Your task to perform on an android device: add a contact in the contacts app Image 0: 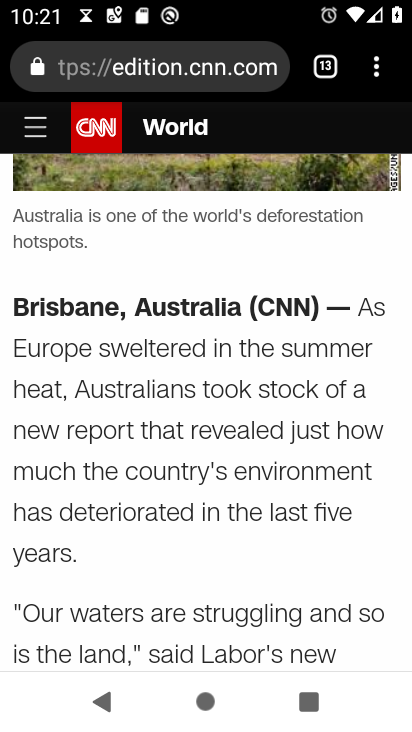
Step 0: press home button
Your task to perform on an android device: add a contact in the contacts app Image 1: 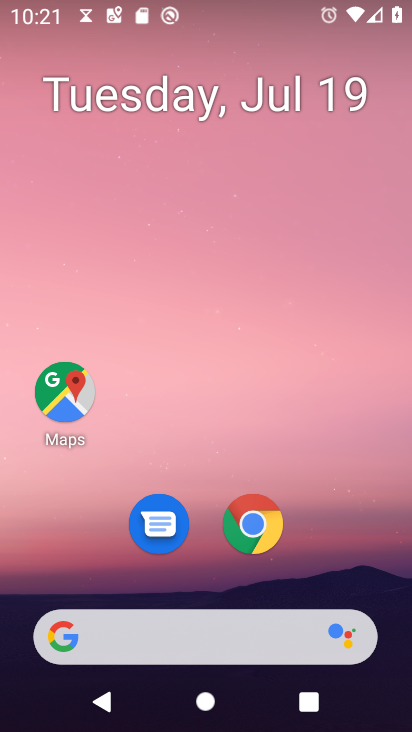
Step 1: drag from (199, 632) to (361, 36)
Your task to perform on an android device: add a contact in the contacts app Image 2: 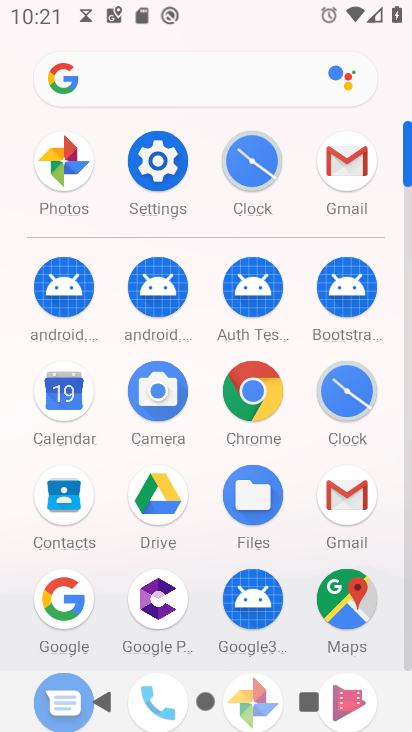
Step 2: click (64, 497)
Your task to perform on an android device: add a contact in the contacts app Image 3: 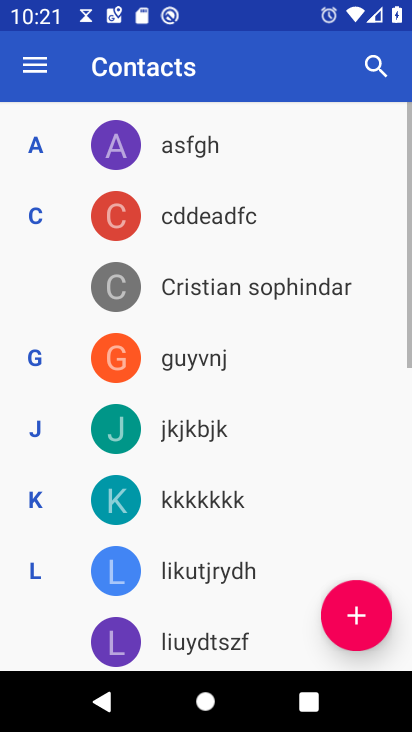
Step 3: click (366, 612)
Your task to perform on an android device: add a contact in the contacts app Image 4: 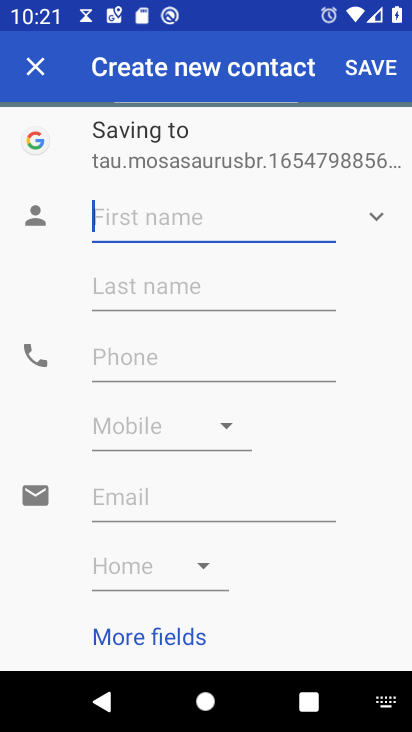
Step 4: type "nuuytiiiokn"
Your task to perform on an android device: add a contact in the contacts app Image 5: 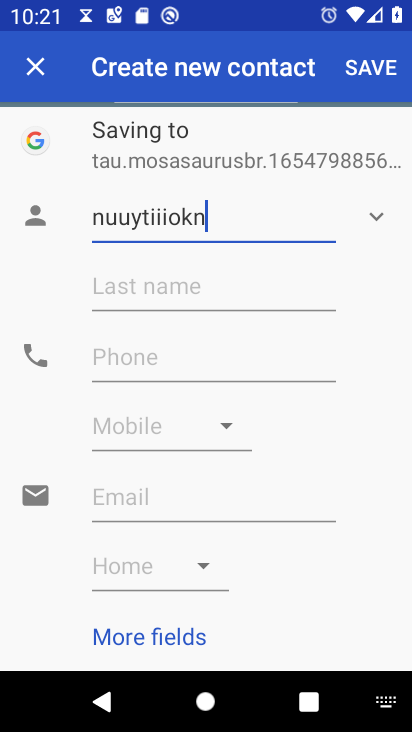
Step 5: click (111, 359)
Your task to perform on an android device: add a contact in the contacts app Image 6: 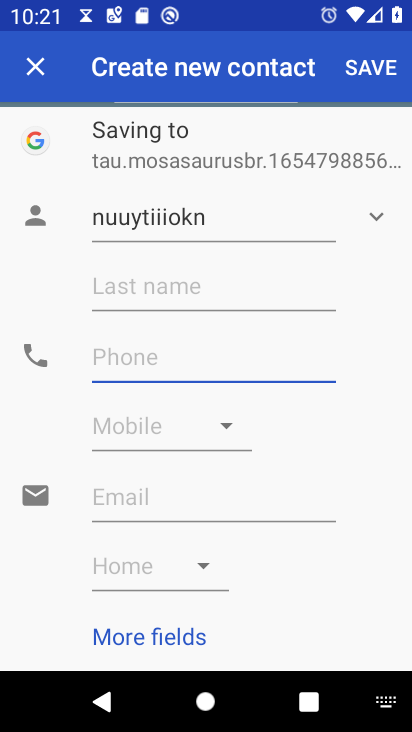
Step 6: type "2377654887"
Your task to perform on an android device: add a contact in the contacts app Image 7: 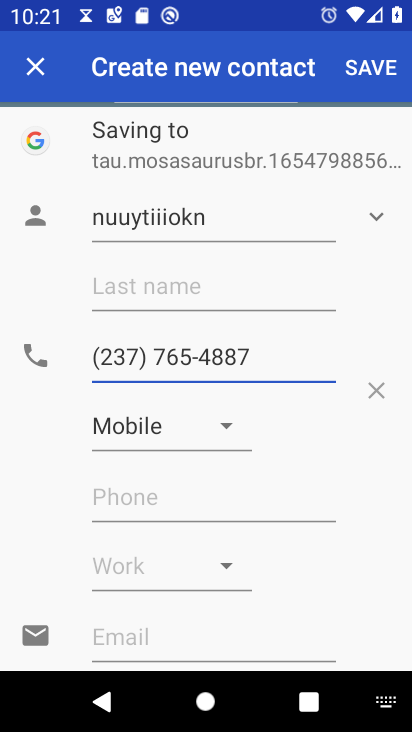
Step 7: click (363, 72)
Your task to perform on an android device: add a contact in the contacts app Image 8: 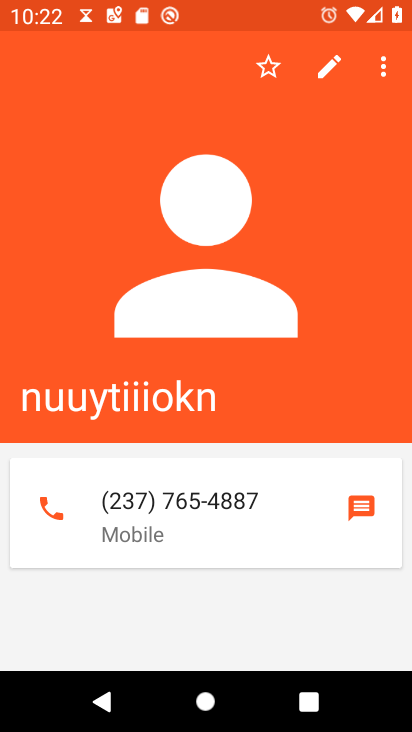
Step 8: task complete